Your task to perform on an android device: allow notifications from all sites in the chrome app Image 0: 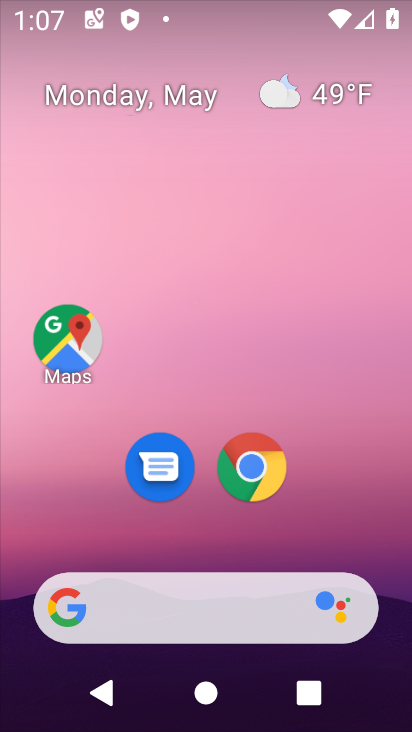
Step 0: drag from (382, 522) to (375, 181)
Your task to perform on an android device: allow notifications from all sites in the chrome app Image 1: 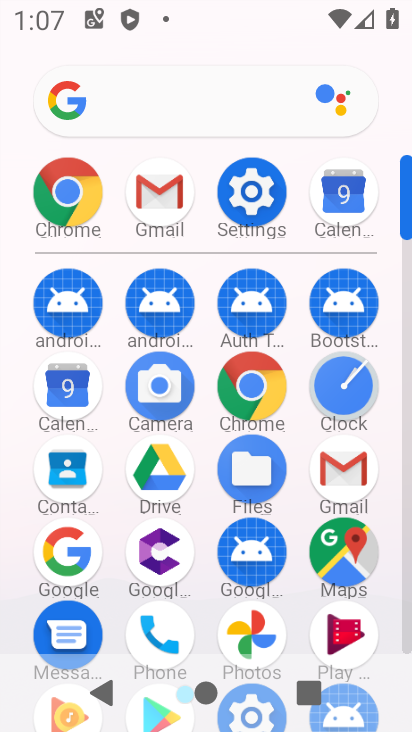
Step 1: click (237, 408)
Your task to perform on an android device: allow notifications from all sites in the chrome app Image 2: 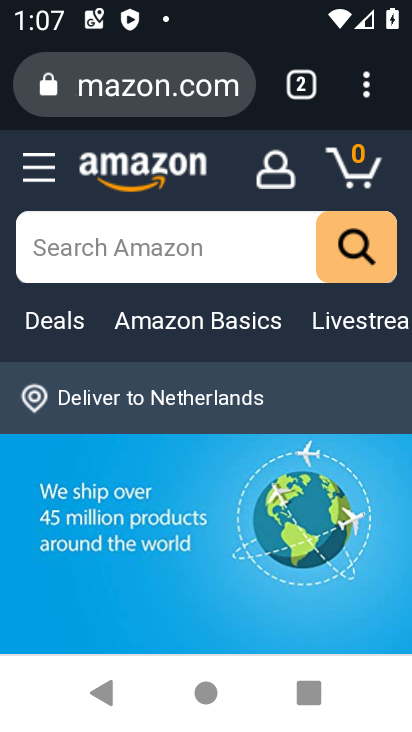
Step 2: drag from (359, 78) to (113, 513)
Your task to perform on an android device: allow notifications from all sites in the chrome app Image 3: 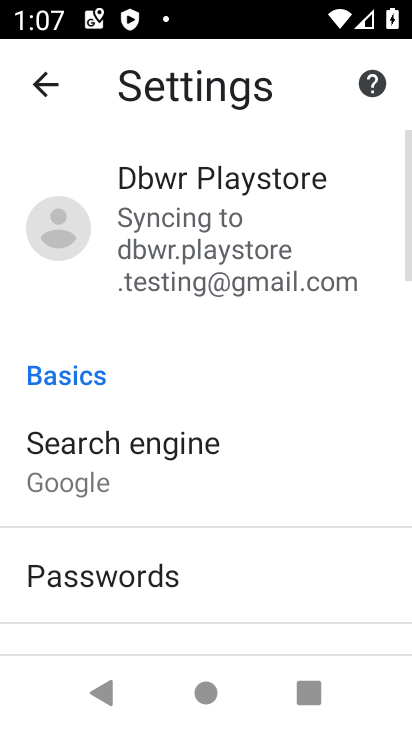
Step 3: drag from (291, 555) to (303, 222)
Your task to perform on an android device: allow notifications from all sites in the chrome app Image 4: 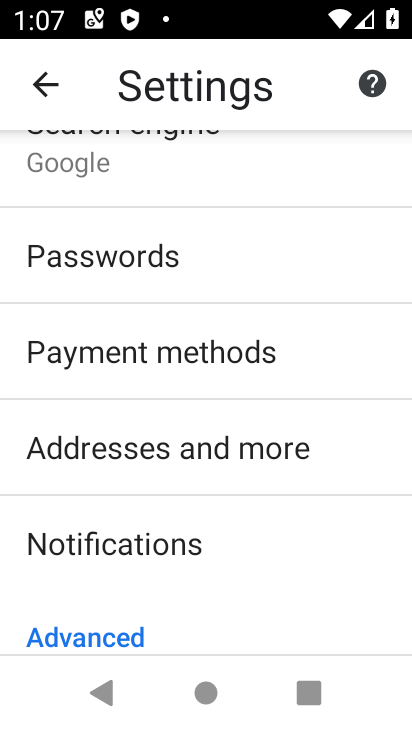
Step 4: drag from (278, 542) to (312, 298)
Your task to perform on an android device: allow notifications from all sites in the chrome app Image 5: 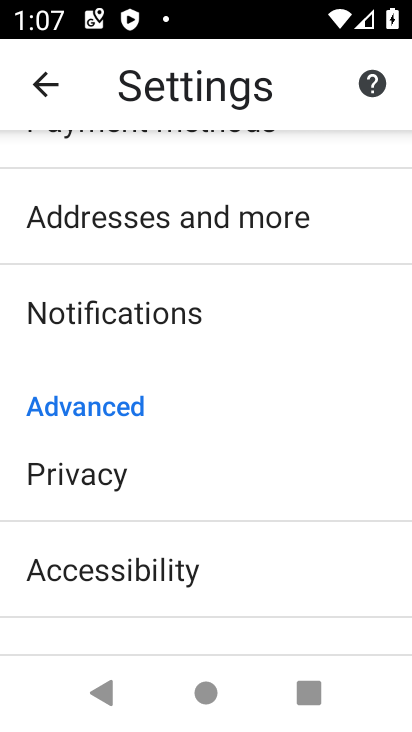
Step 5: drag from (277, 555) to (298, 340)
Your task to perform on an android device: allow notifications from all sites in the chrome app Image 6: 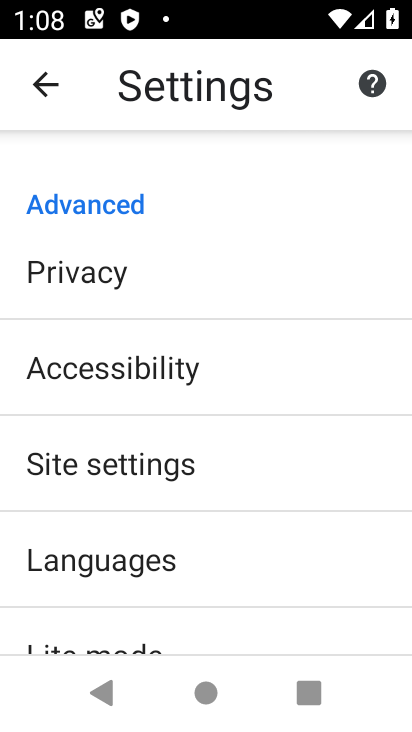
Step 6: click (229, 469)
Your task to perform on an android device: allow notifications from all sites in the chrome app Image 7: 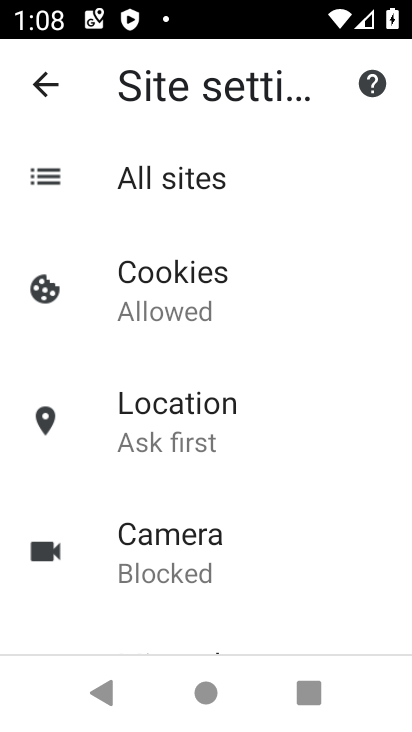
Step 7: click (149, 172)
Your task to perform on an android device: allow notifications from all sites in the chrome app Image 8: 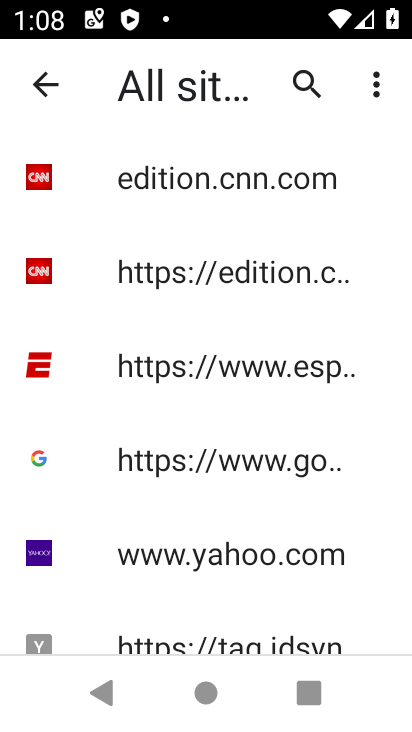
Step 8: drag from (113, 653) to (115, 340)
Your task to perform on an android device: allow notifications from all sites in the chrome app Image 9: 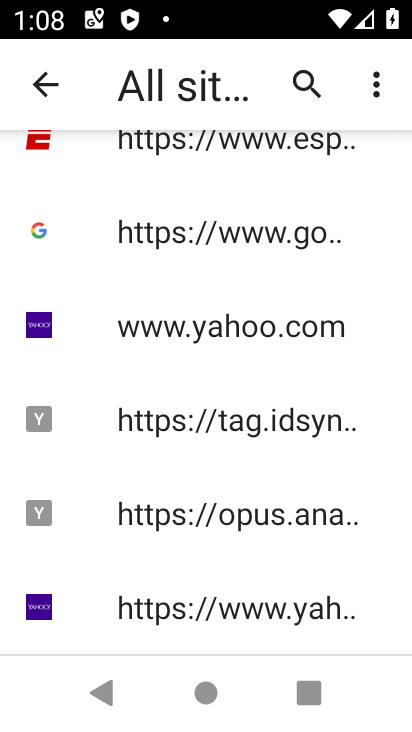
Step 9: click (176, 319)
Your task to perform on an android device: allow notifications from all sites in the chrome app Image 10: 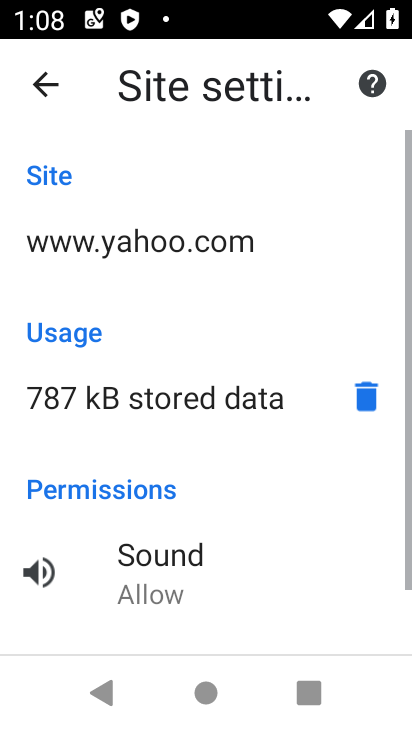
Step 10: task complete